Your task to perform on an android device: Go to Wikipedia Image 0: 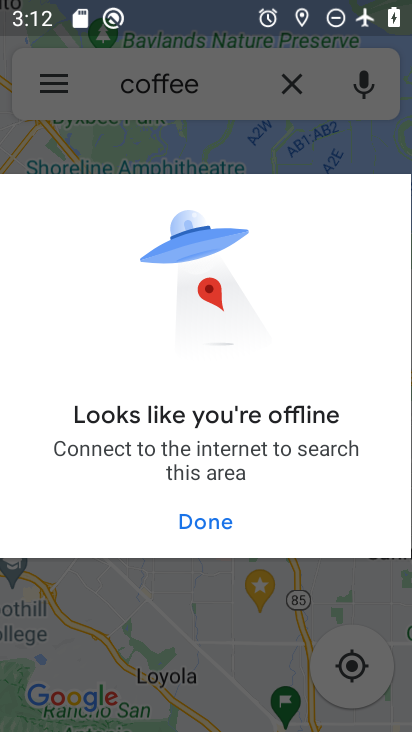
Step 0: press home button
Your task to perform on an android device: Go to Wikipedia Image 1: 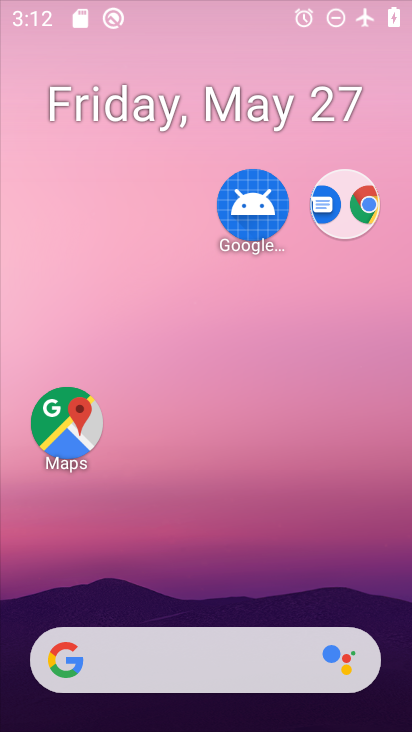
Step 1: drag from (244, 603) to (289, 388)
Your task to perform on an android device: Go to Wikipedia Image 2: 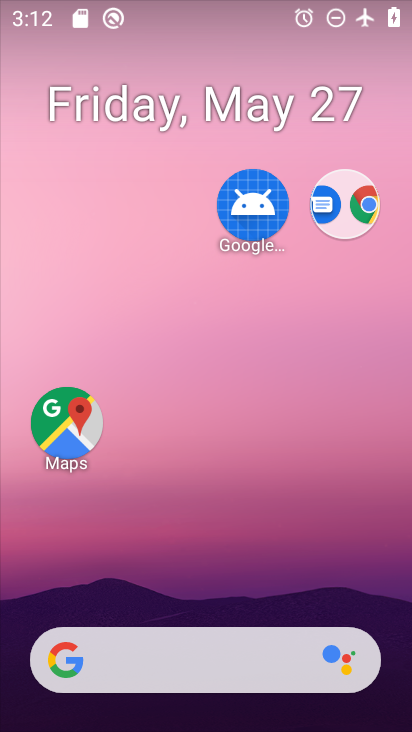
Step 2: drag from (223, 619) to (282, 113)
Your task to perform on an android device: Go to Wikipedia Image 3: 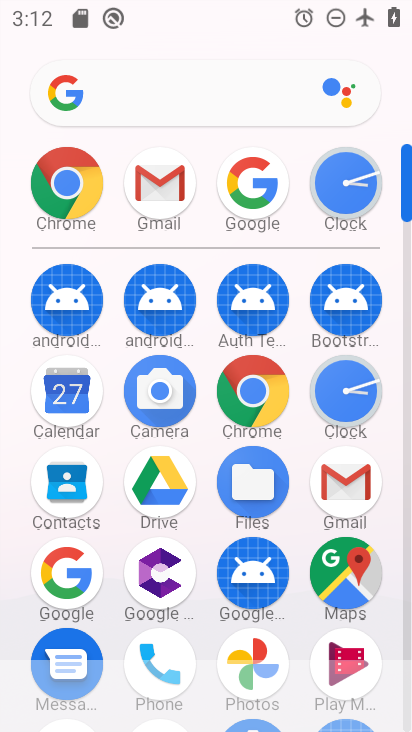
Step 3: click (88, 170)
Your task to perform on an android device: Go to Wikipedia Image 4: 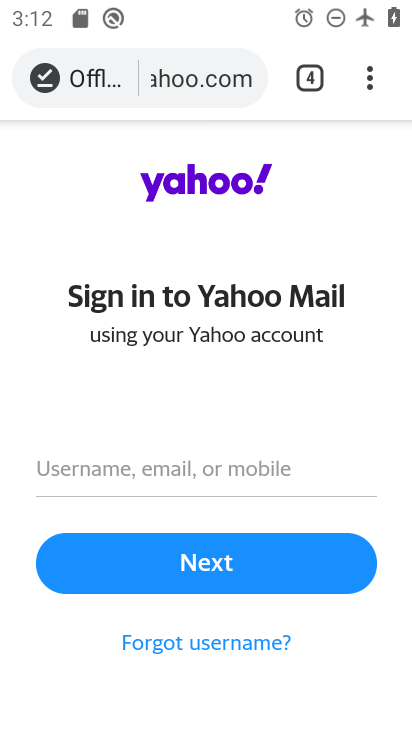
Step 4: click (209, 89)
Your task to perform on an android device: Go to Wikipedia Image 5: 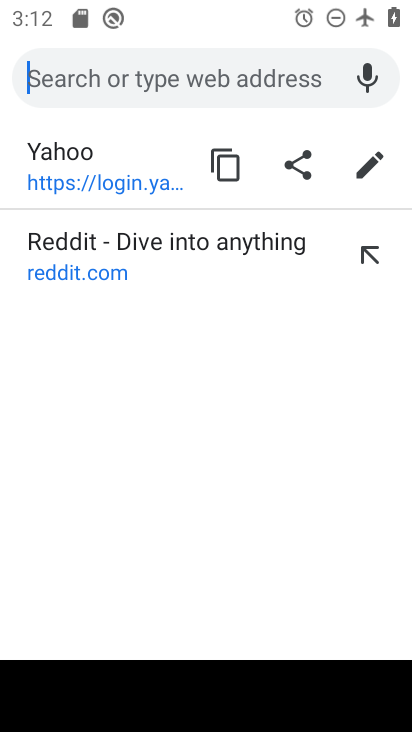
Step 5: type "wiki"
Your task to perform on an android device: Go to Wikipedia Image 6: 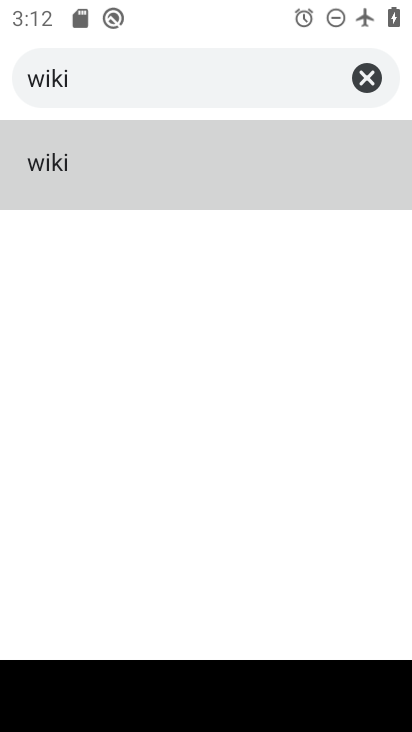
Step 6: task complete